Your task to perform on an android device: allow cookies in the chrome app Image 0: 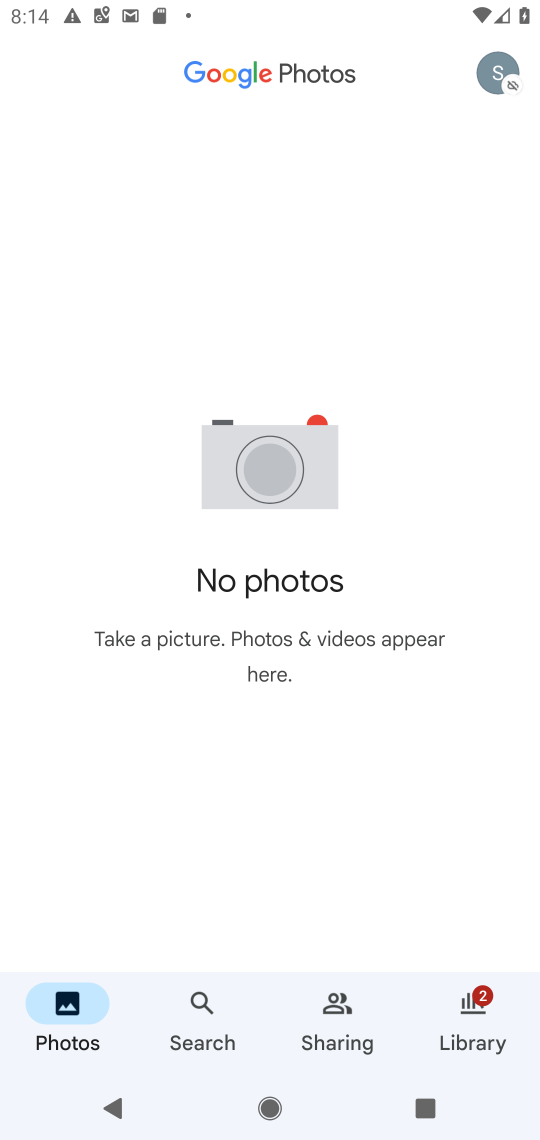
Step 0: press home button
Your task to perform on an android device: allow cookies in the chrome app Image 1: 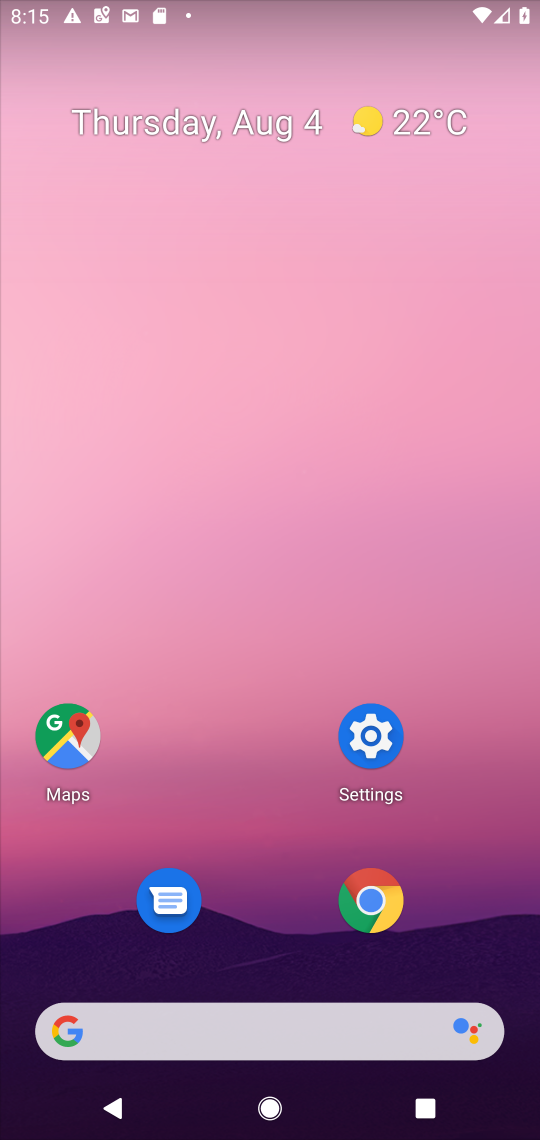
Step 1: click (368, 894)
Your task to perform on an android device: allow cookies in the chrome app Image 2: 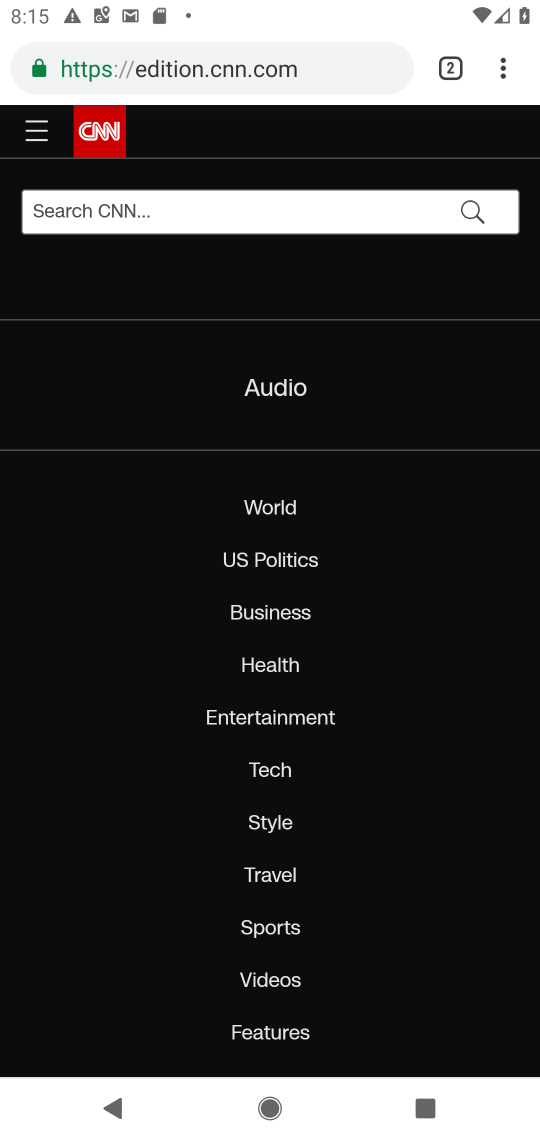
Step 2: drag from (501, 65) to (357, 881)
Your task to perform on an android device: allow cookies in the chrome app Image 3: 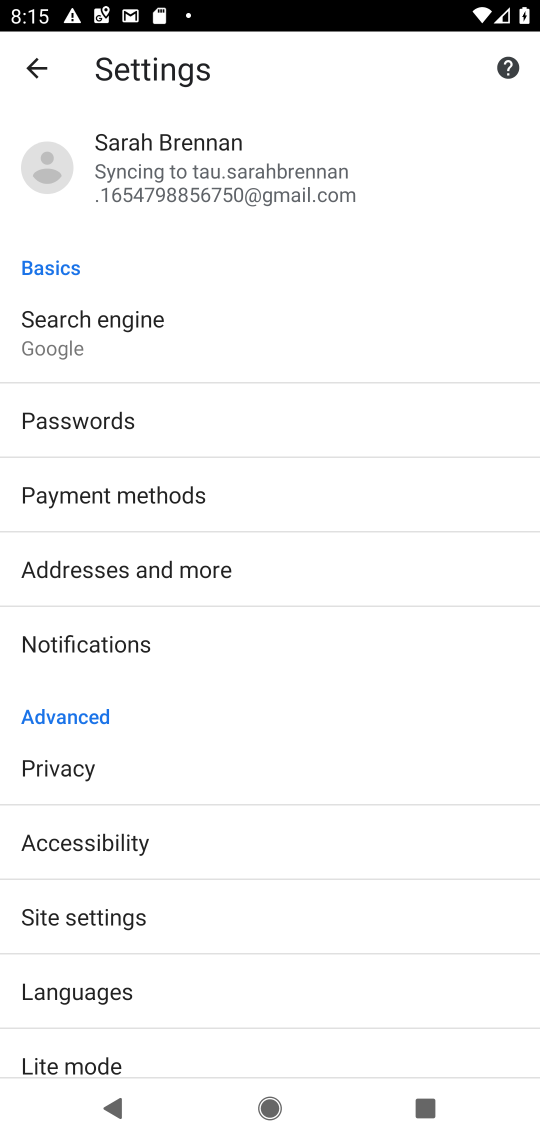
Step 3: click (106, 912)
Your task to perform on an android device: allow cookies in the chrome app Image 4: 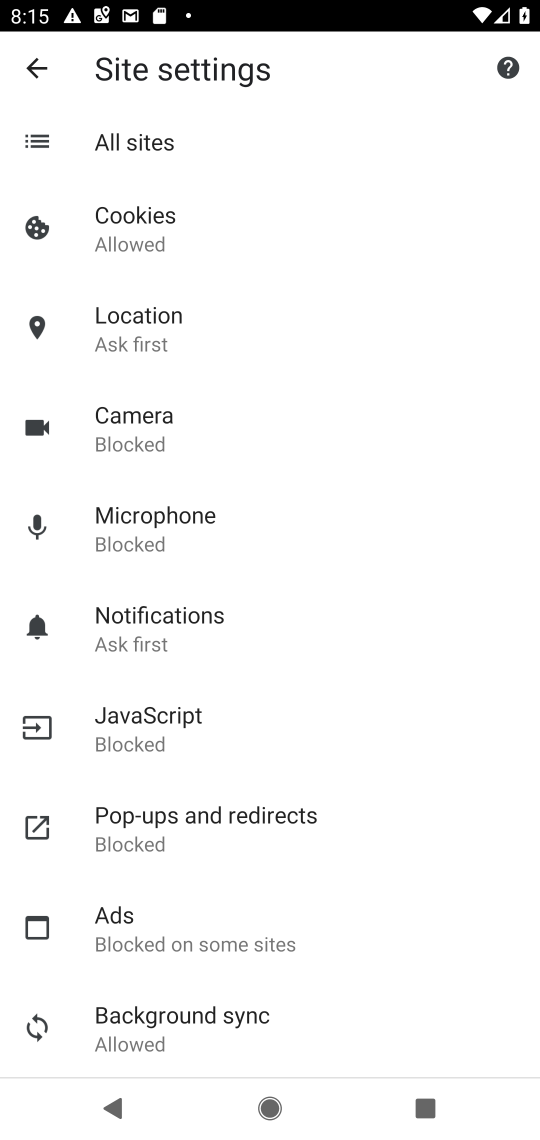
Step 4: click (129, 228)
Your task to perform on an android device: allow cookies in the chrome app Image 5: 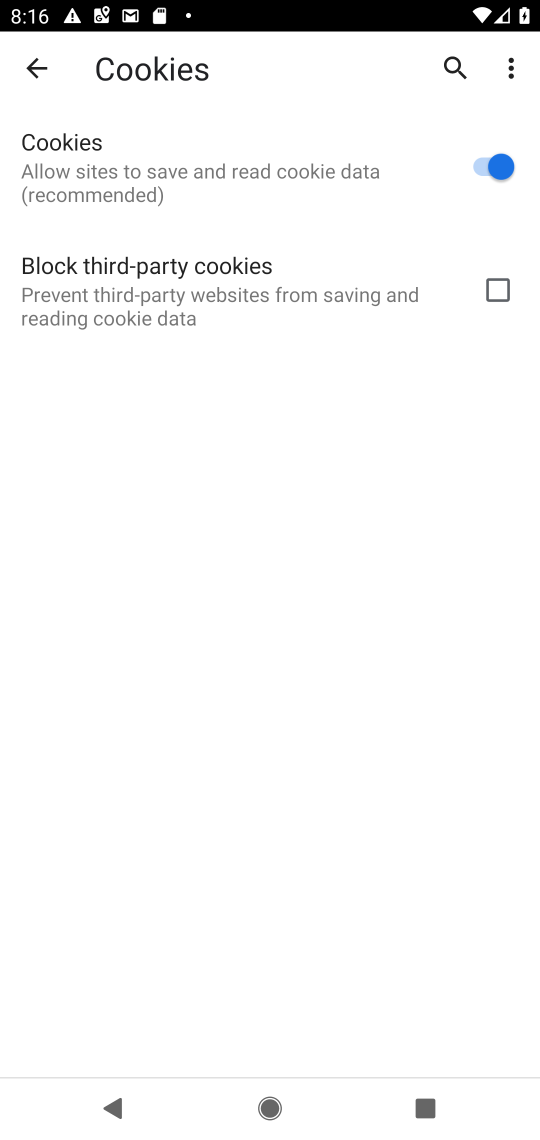
Step 5: task complete